Your task to perform on an android device: What's the weather going to be tomorrow? Image 0: 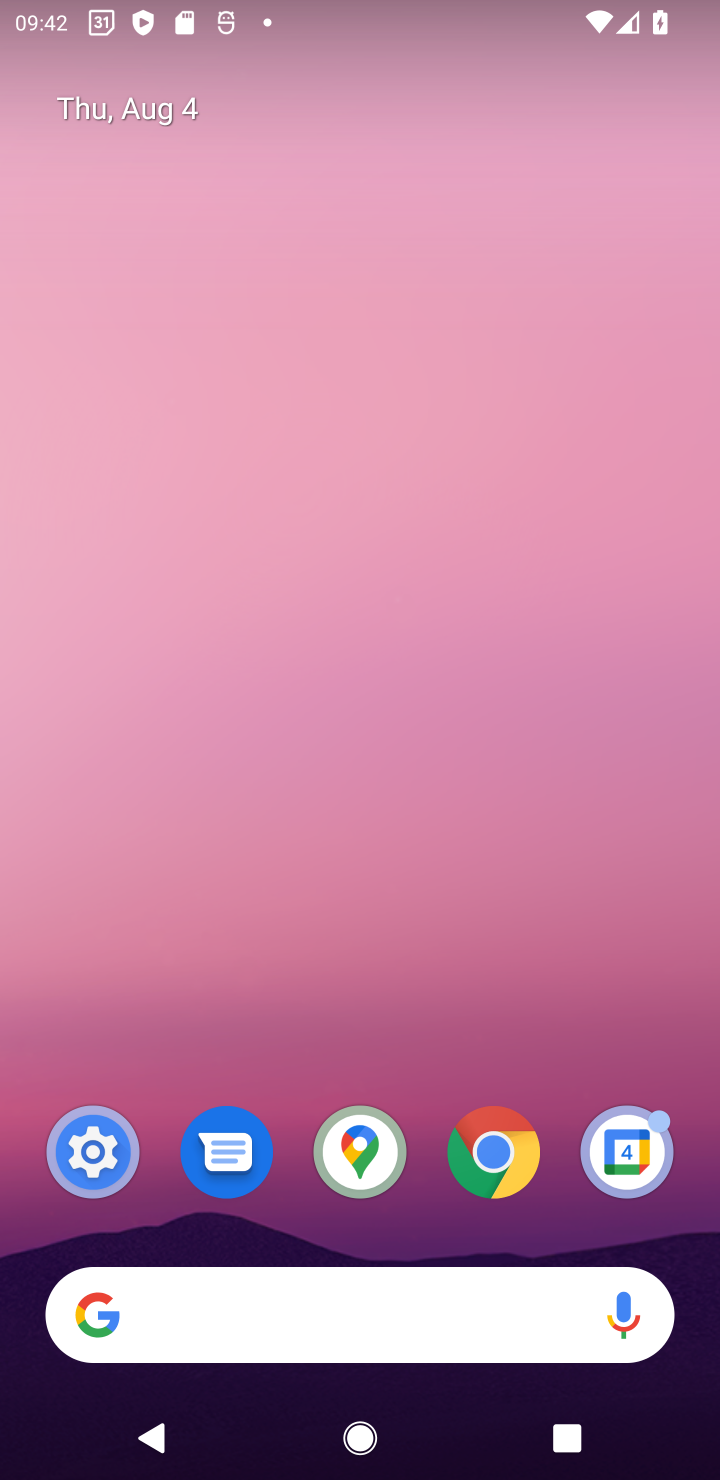
Step 0: click (288, 1303)
Your task to perform on an android device: What's the weather going to be tomorrow? Image 1: 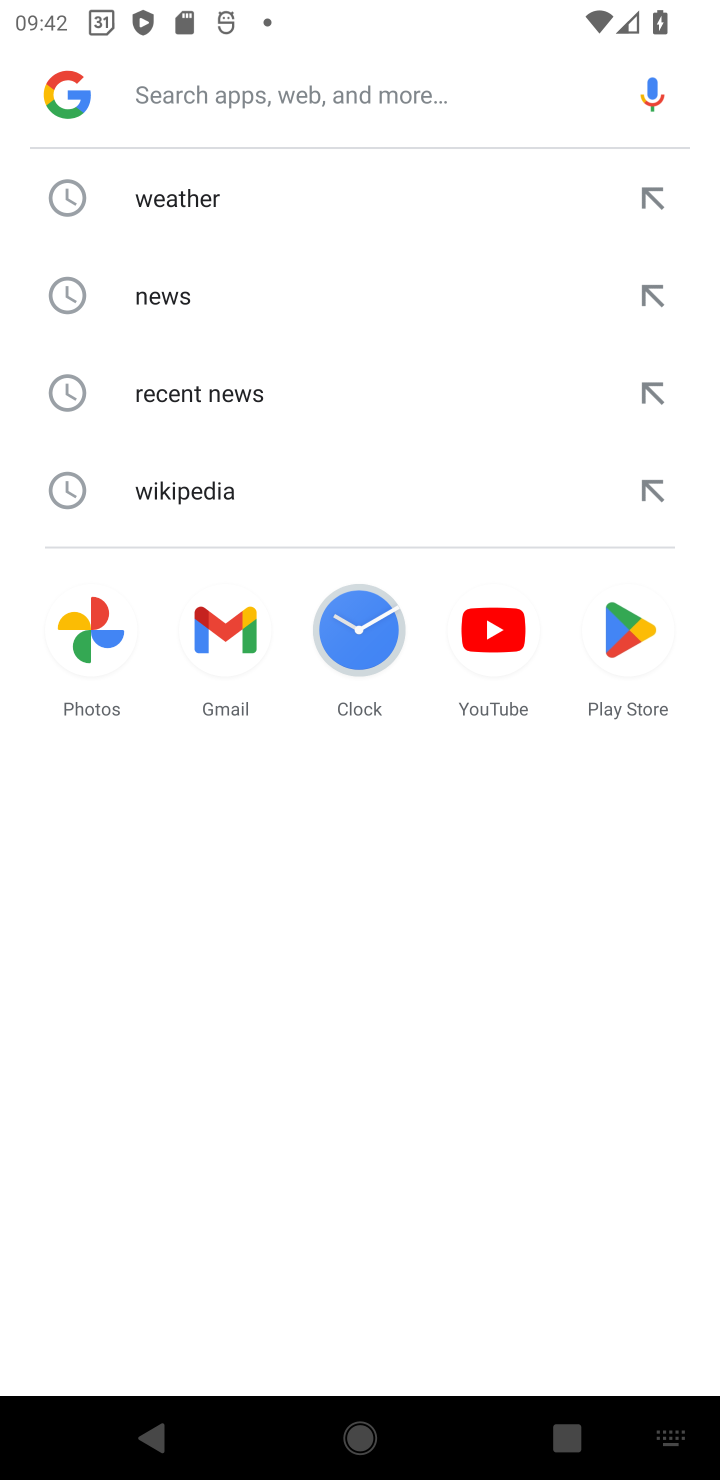
Step 1: click (242, 192)
Your task to perform on an android device: What's the weather going to be tomorrow? Image 2: 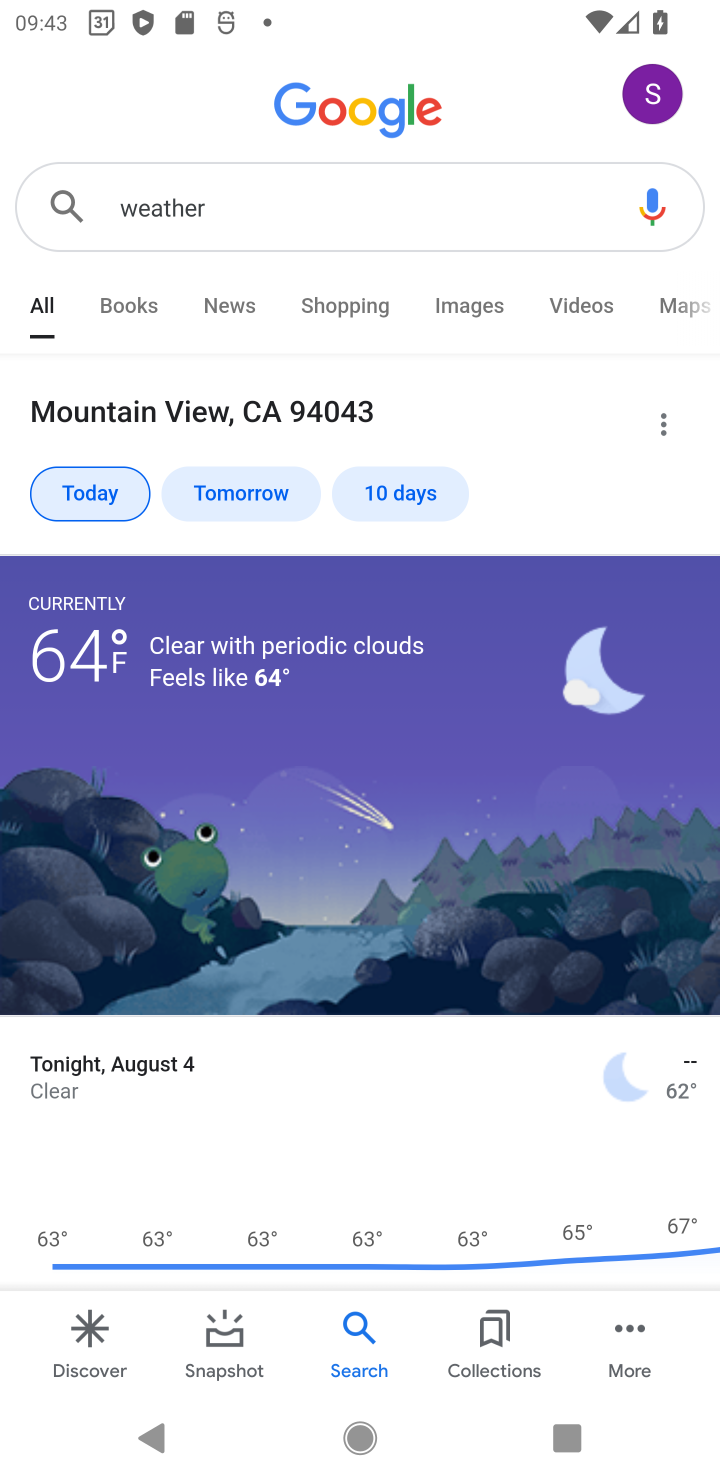
Step 2: click (218, 483)
Your task to perform on an android device: What's the weather going to be tomorrow? Image 3: 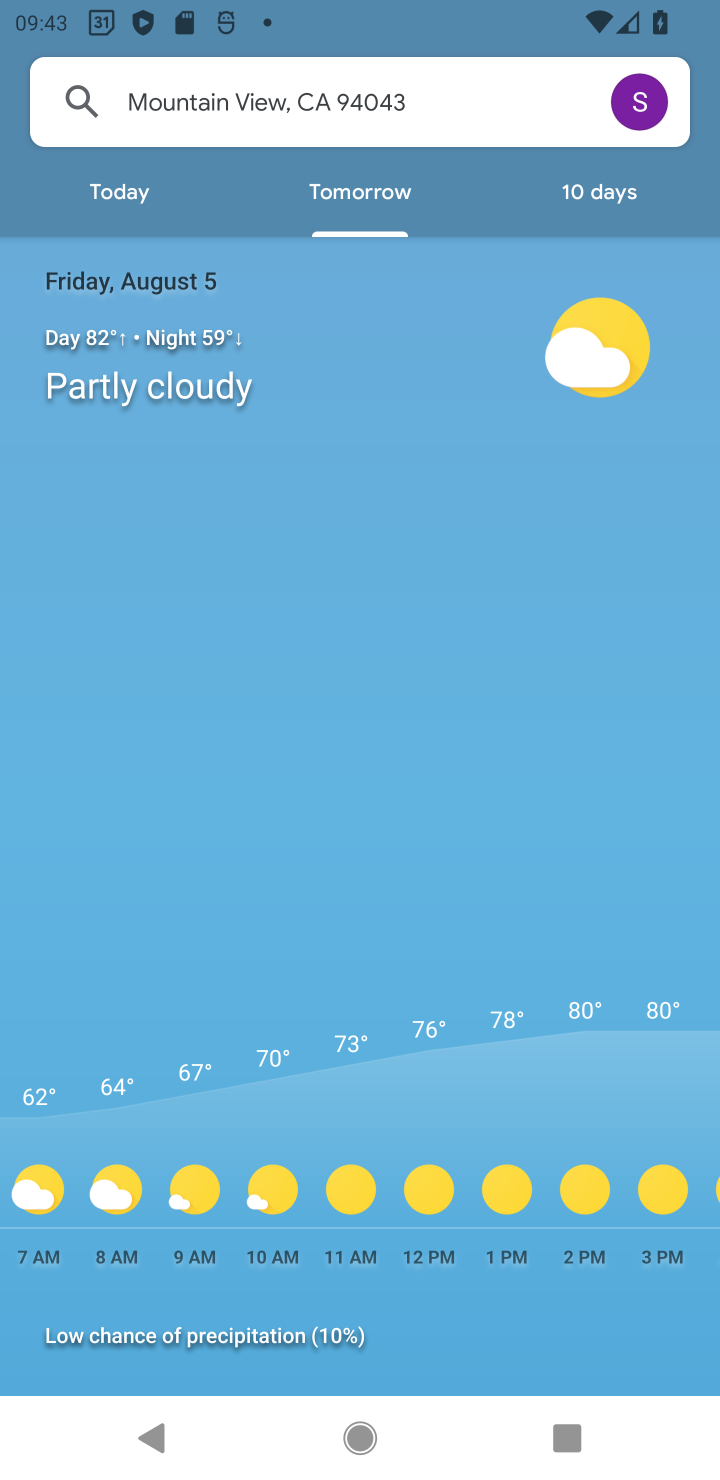
Step 3: task complete